Your task to perform on an android device: turn pop-ups on in chrome Image 0: 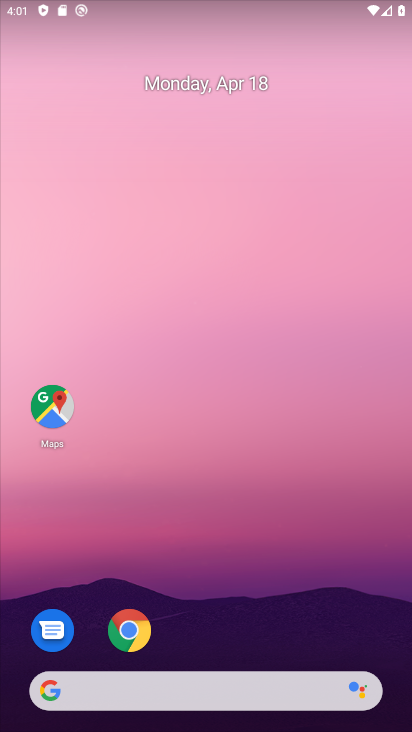
Step 0: click (126, 629)
Your task to perform on an android device: turn pop-ups on in chrome Image 1: 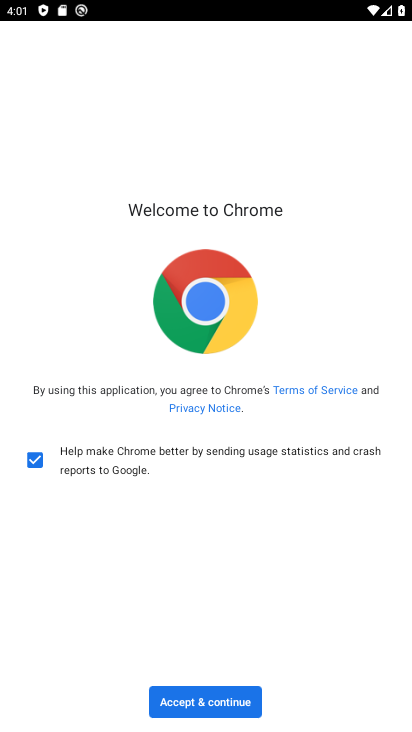
Step 1: click (187, 700)
Your task to perform on an android device: turn pop-ups on in chrome Image 2: 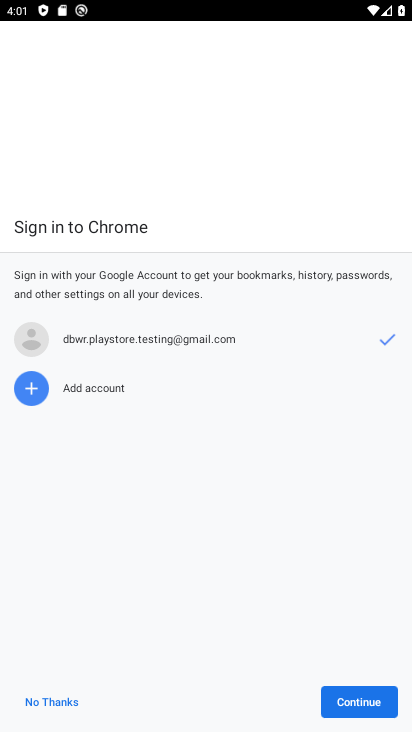
Step 2: click (340, 705)
Your task to perform on an android device: turn pop-ups on in chrome Image 3: 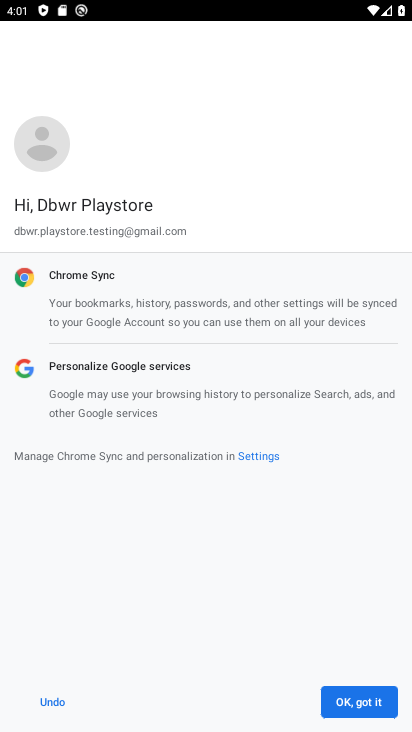
Step 3: click (340, 705)
Your task to perform on an android device: turn pop-ups on in chrome Image 4: 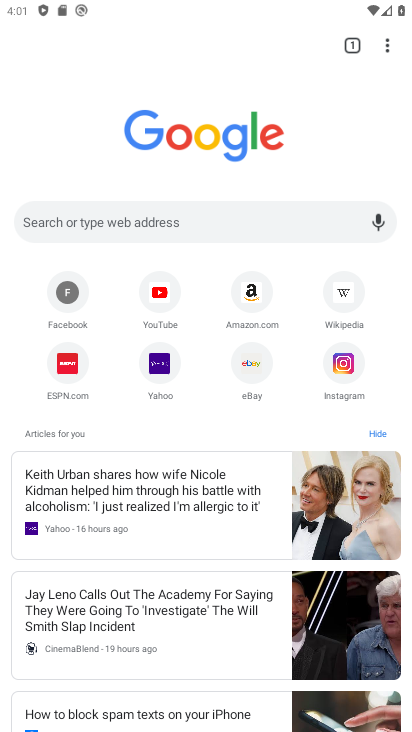
Step 4: click (388, 47)
Your task to perform on an android device: turn pop-ups on in chrome Image 5: 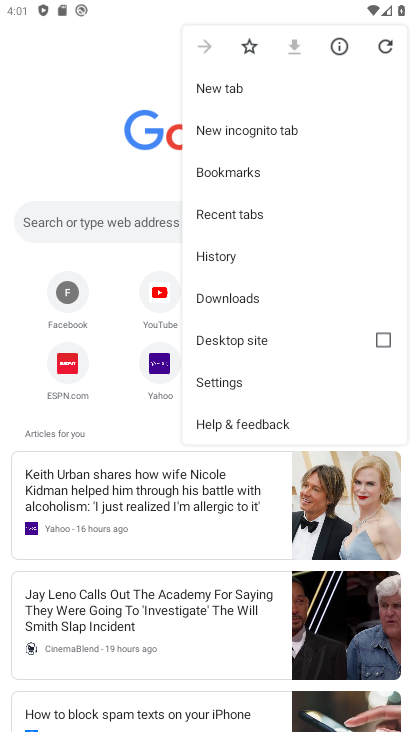
Step 5: click (230, 386)
Your task to perform on an android device: turn pop-ups on in chrome Image 6: 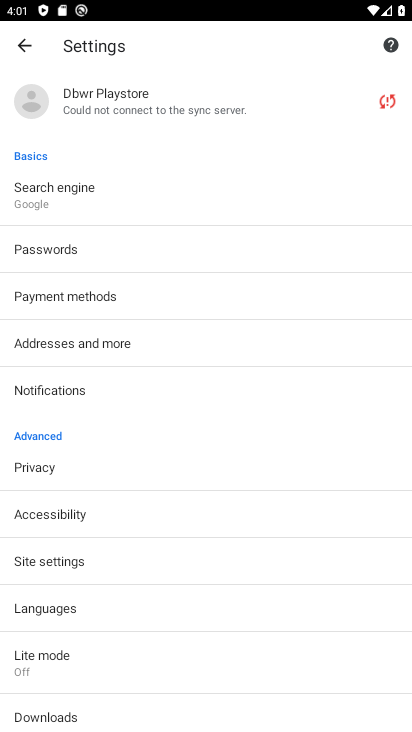
Step 6: click (52, 565)
Your task to perform on an android device: turn pop-ups on in chrome Image 7: 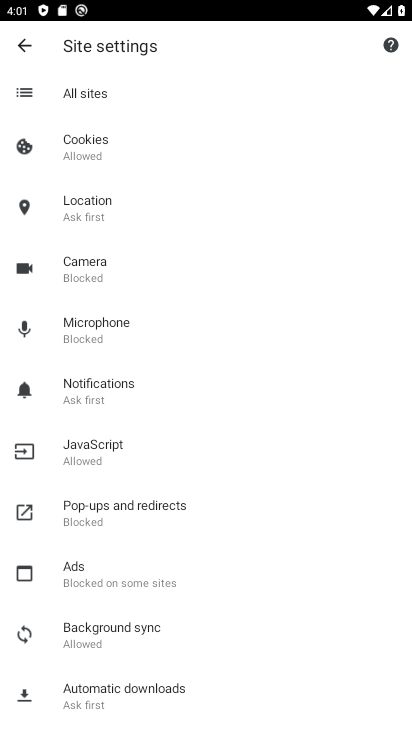
Step 7: click (103, 505)
Your task to perform on an android device: turn pop-ups on in chrome Image 8: 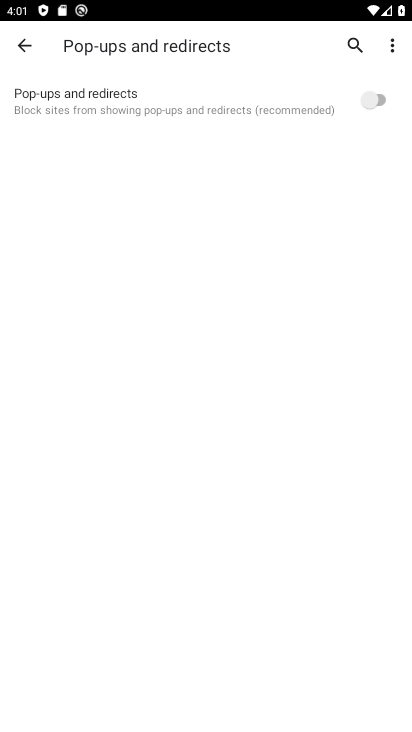
Step 8: click (373, 102)
Your task to perform on an android device: turn pop-ups on in chrome Image 9: 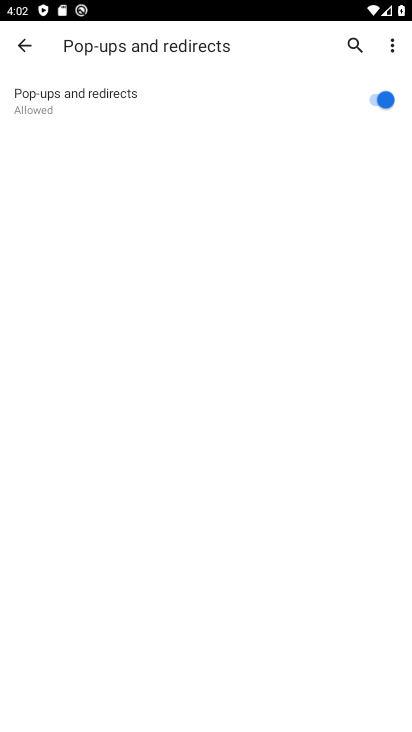
Step 9: task complete